Your task to perform on an android device: Open Google Maps and go to "Timeline" Image 0: 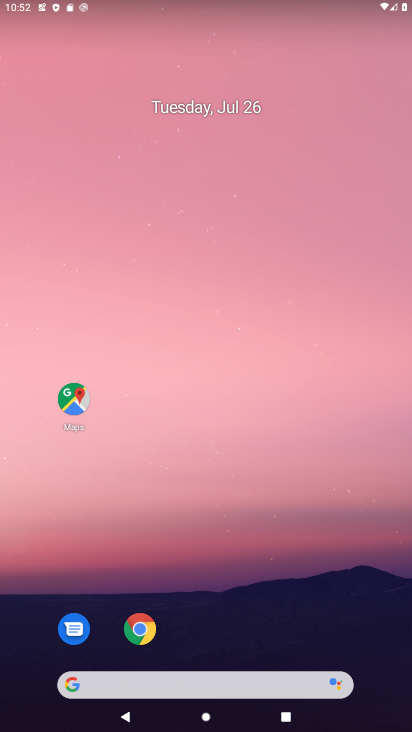
Step 0: click (68, 405)
Your task to perform on an android device: Open Google Maps and go to "Timeline" Image 1: 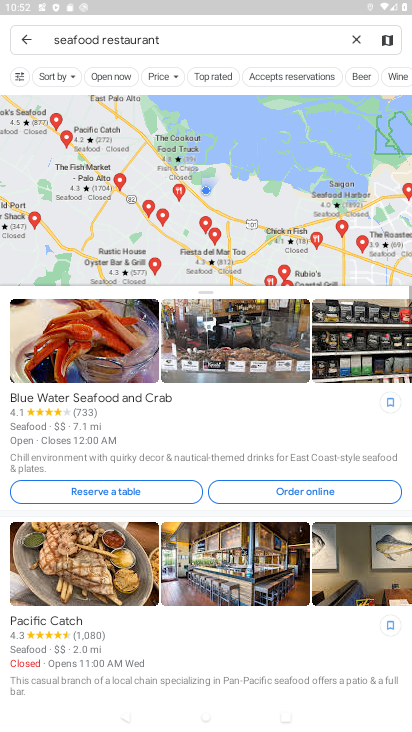
Step 1: click (29, 42)
Your task to perform on an android device: Open Google Maps and go to "Timeline" Image 2: 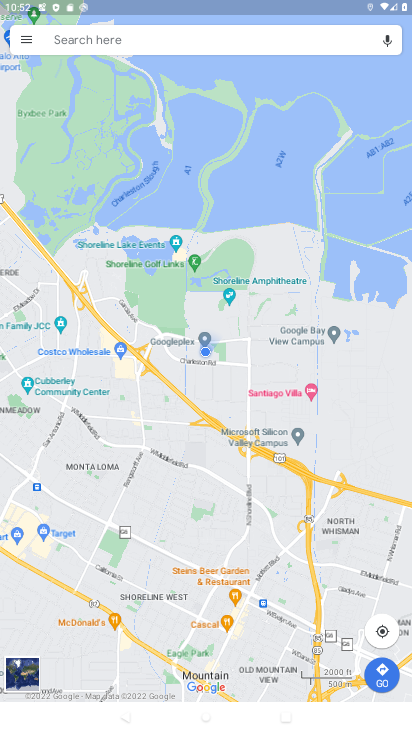
Step 2: click (20, 42)
Your task to perform on an android device: Open Google Maps and go to "Timeline" Image 3: 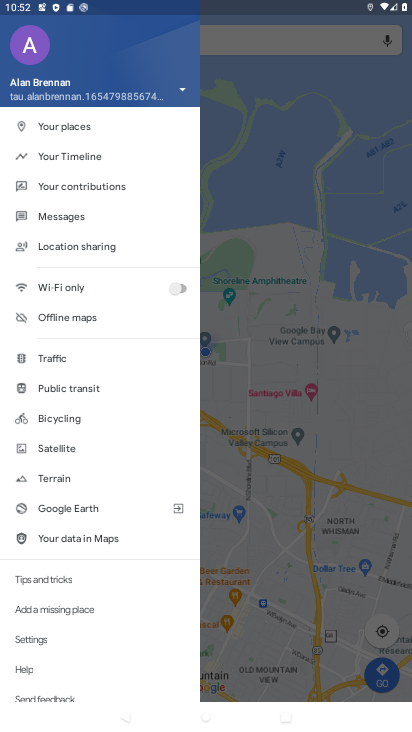
Step 3: click (54, 151)
Your task to perform on an android device: Open Google Maps and go to "Timeline" Image 4: 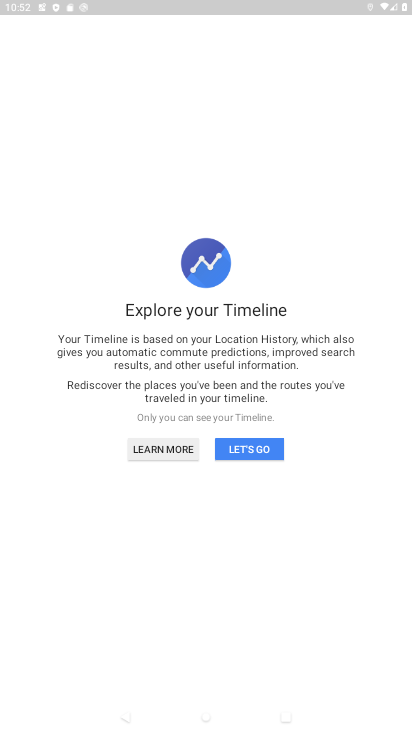
Step 4: click (234, 451)
Your task to perform on an android device: Open Google Maps and go to "Timeline" Image 5: 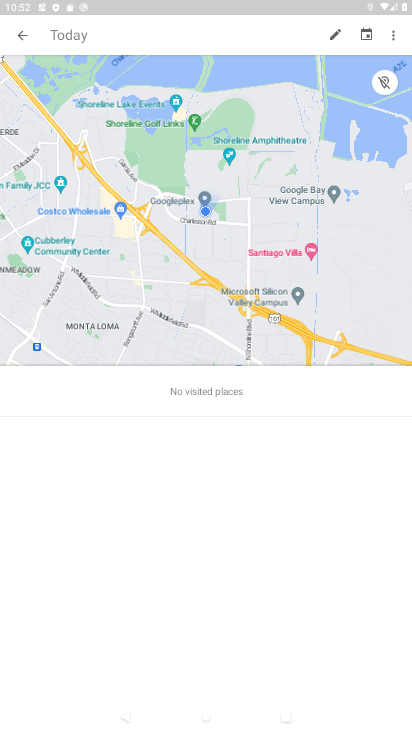
Step 5: task complete